Your task to perform on an android device: Search for "logitech g502" on amazon.com, select the first entry, add it to the cart, then select checkout. Image 0: 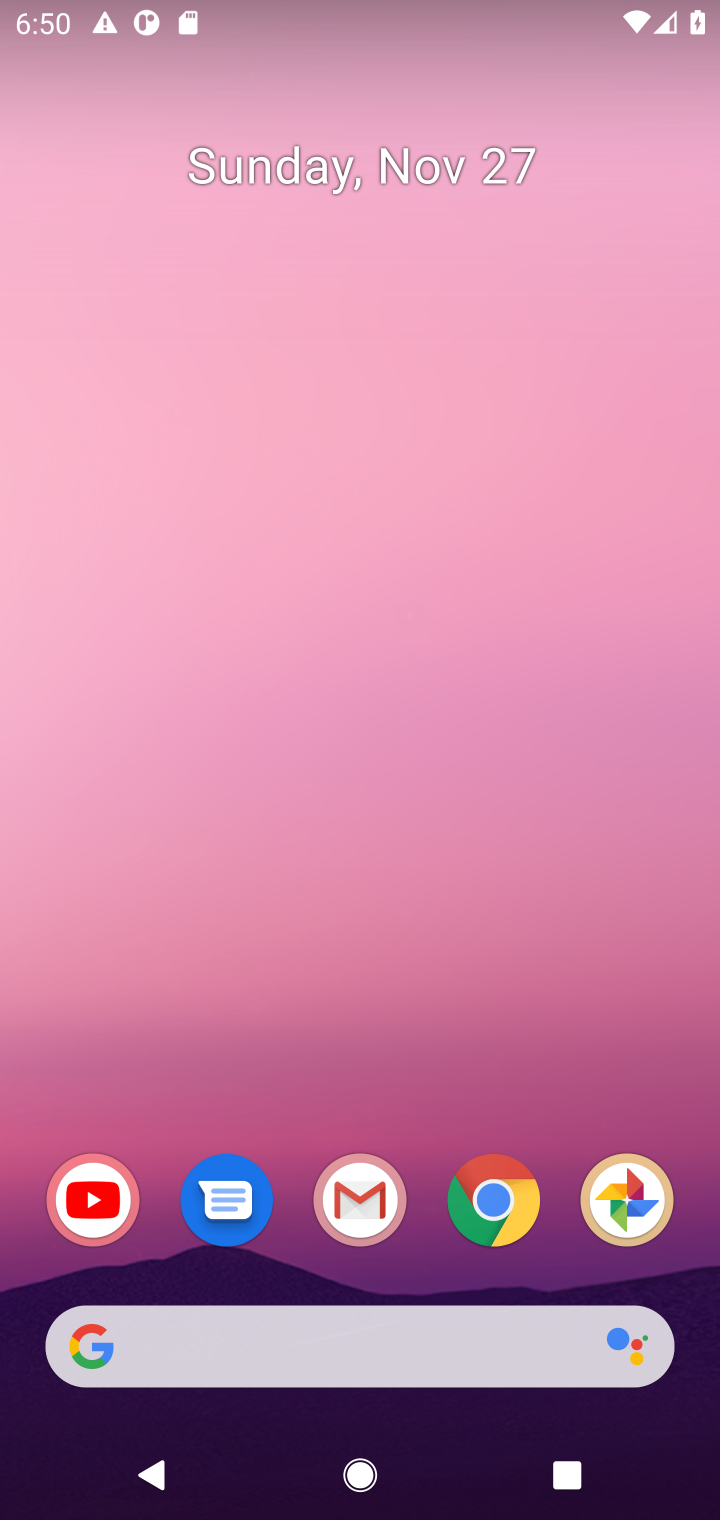
Step 0: click (505, 1216)
Your task to perform on an android device: Search for "logitech g502" on amazon.com, select the first entry, add it to the cart, then select checkout. Image 1: 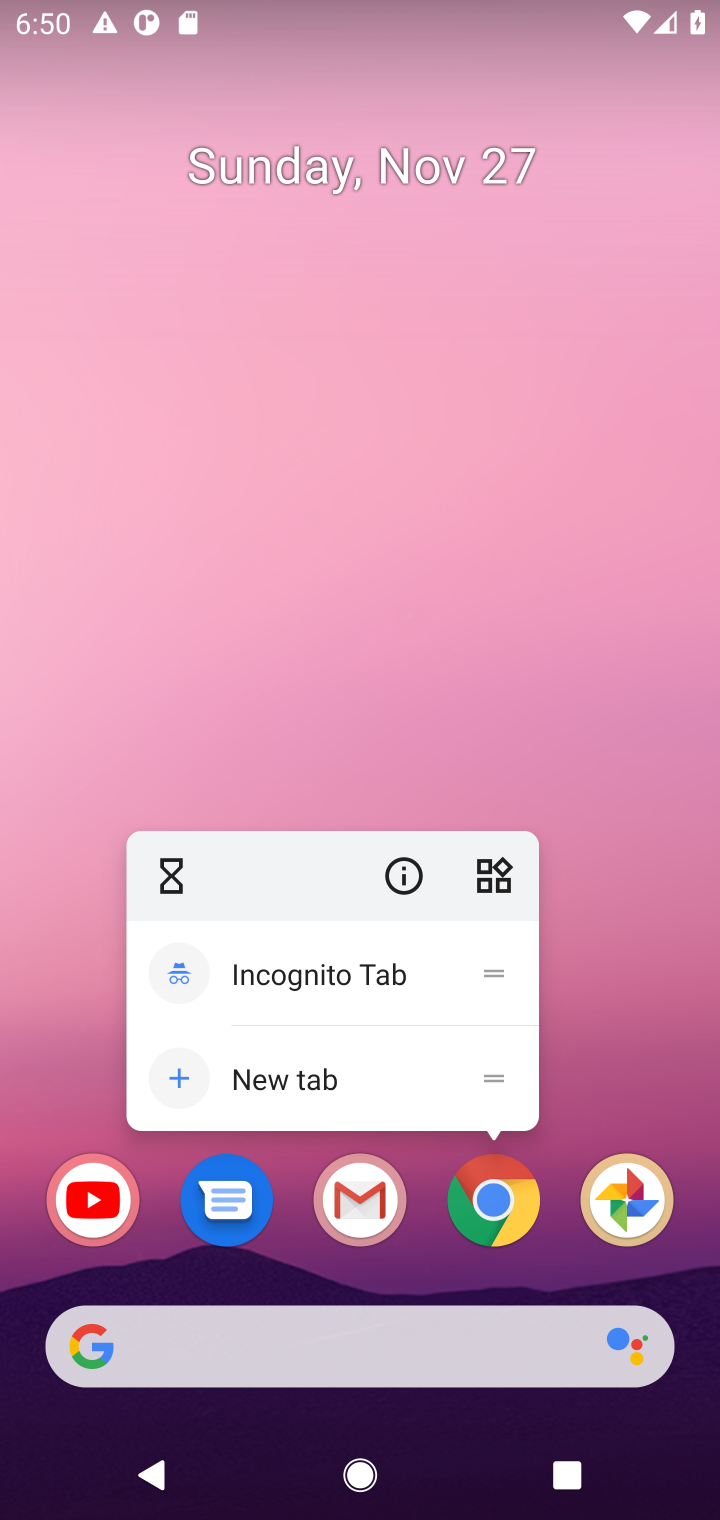
Step 1: click (477, 1203)
Your task to perform on an android device: Search for "logitech g502" on amazon.com, select the first entry, add it to the cart, then select checkout. Image 2: 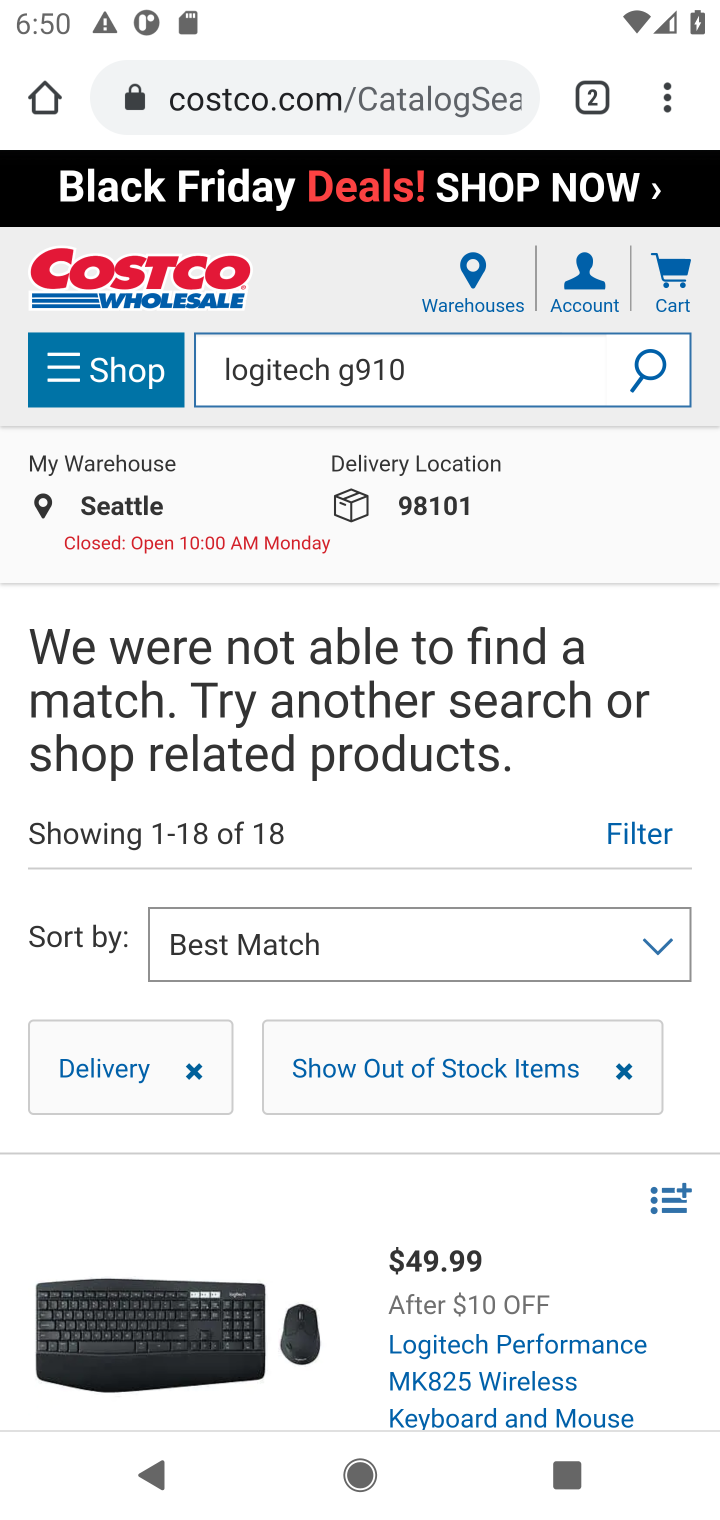
Step 2: click (326, 102)
Your task to perform on an android device: Search for "logitech g502" on amazon.com, select the first entry, add it to the cart, then select checkout. Image 3: 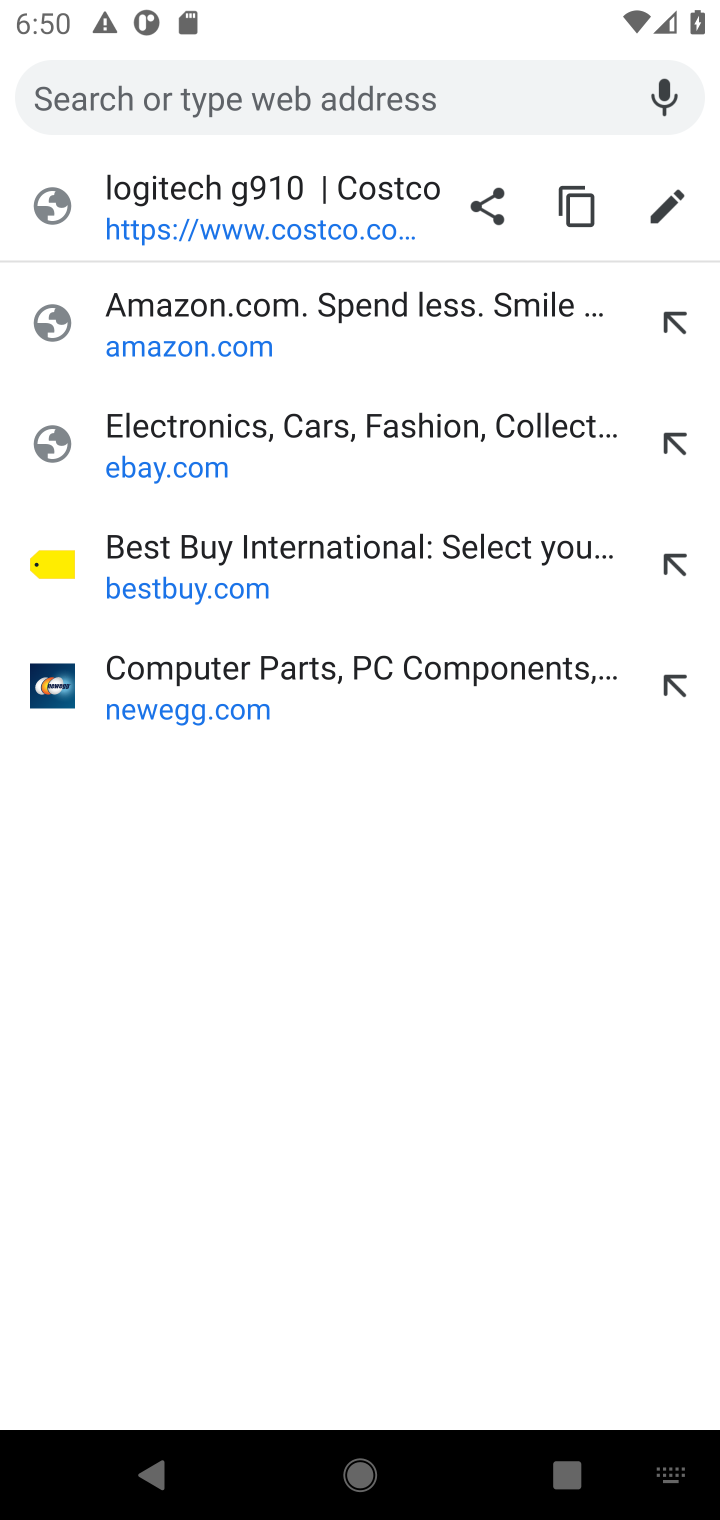
Step 3: click (163, 340)
Your task to perform on an android device: Search for "logitech g502" on amazon.com, select the first entry, add it to the cart, then select checkout. Image 4: 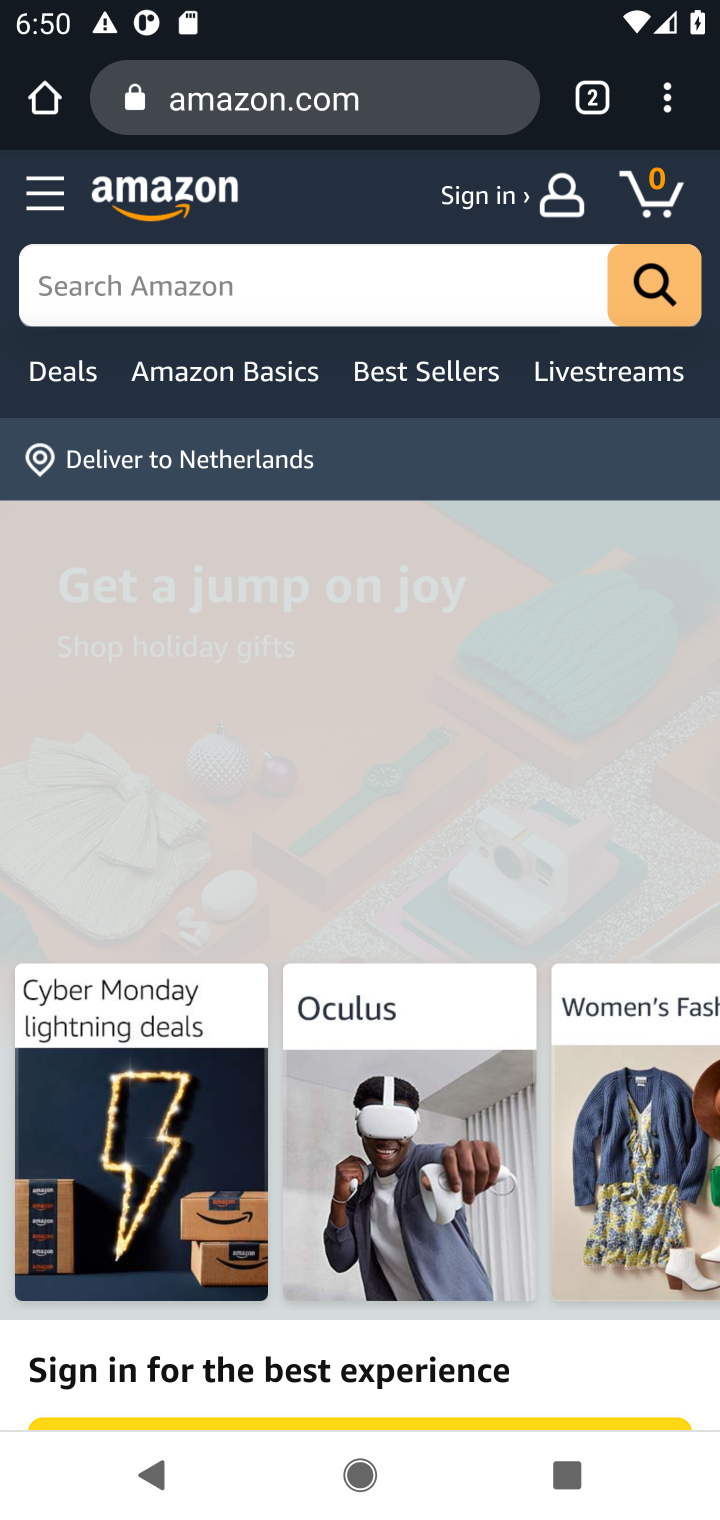
Step 4: click (187, 279)
Your task to perform on an android device: Search for "logitech g502" on amazon.com, select the first entry, add it to the cart, then select checkout. Image 5: 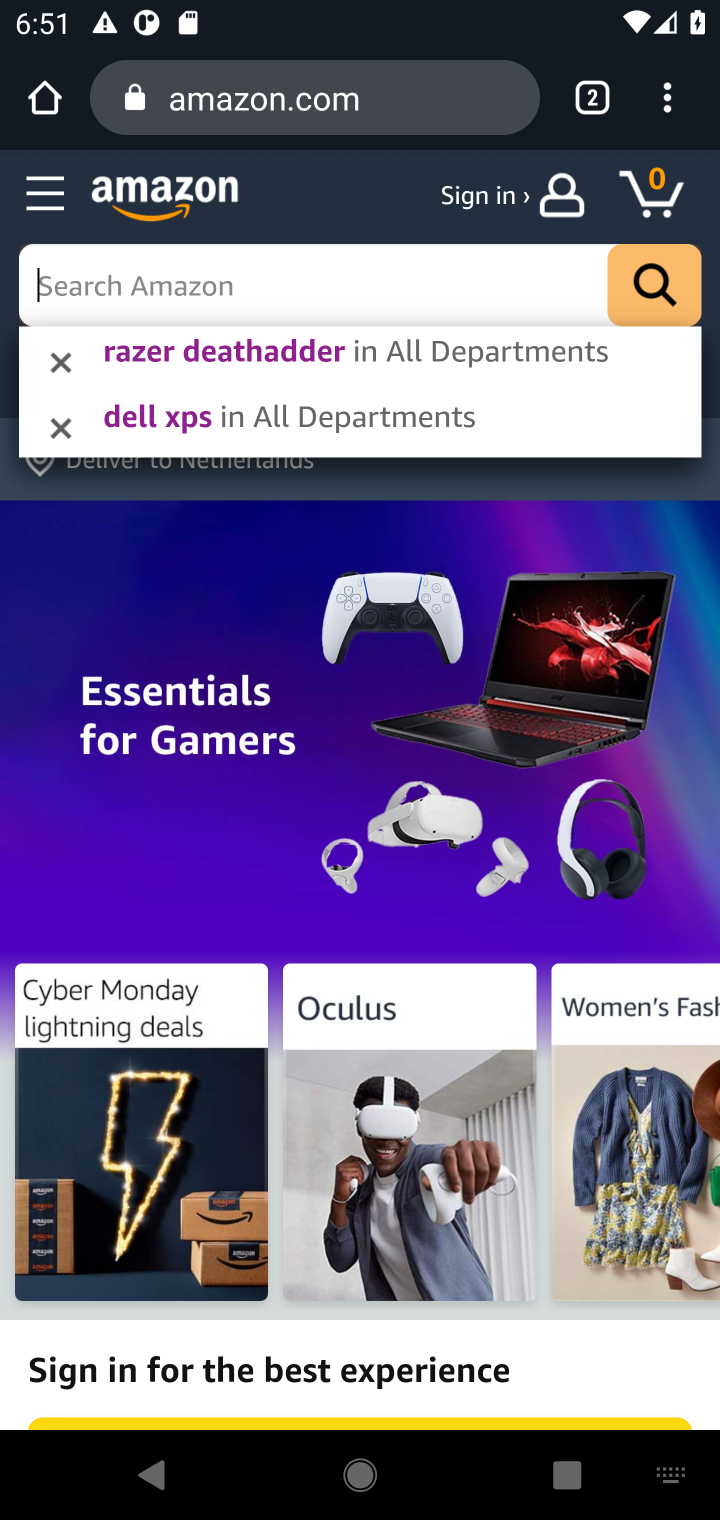
Step 5: type "logitech g502"
Your task to perform on an android device: Search for "logitech g502" on amazon.com, select the first entry, add it to the cart, then select checkout. Image 6: 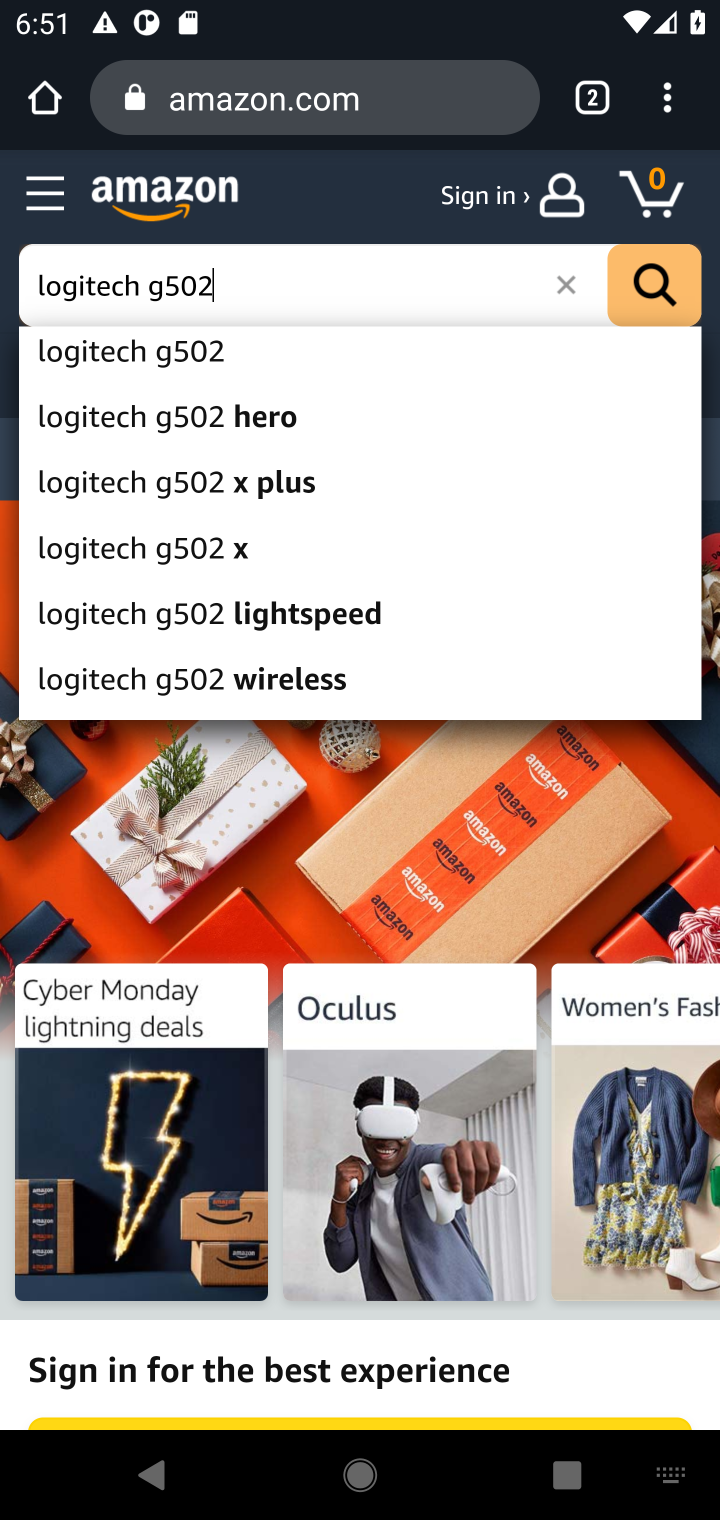
Step 6: click (195, 367)
Your task to perform on an android device: Search for "logitech g502" on amazon.com, select the first entry, add it to the cart, then select checkout. Image 7: 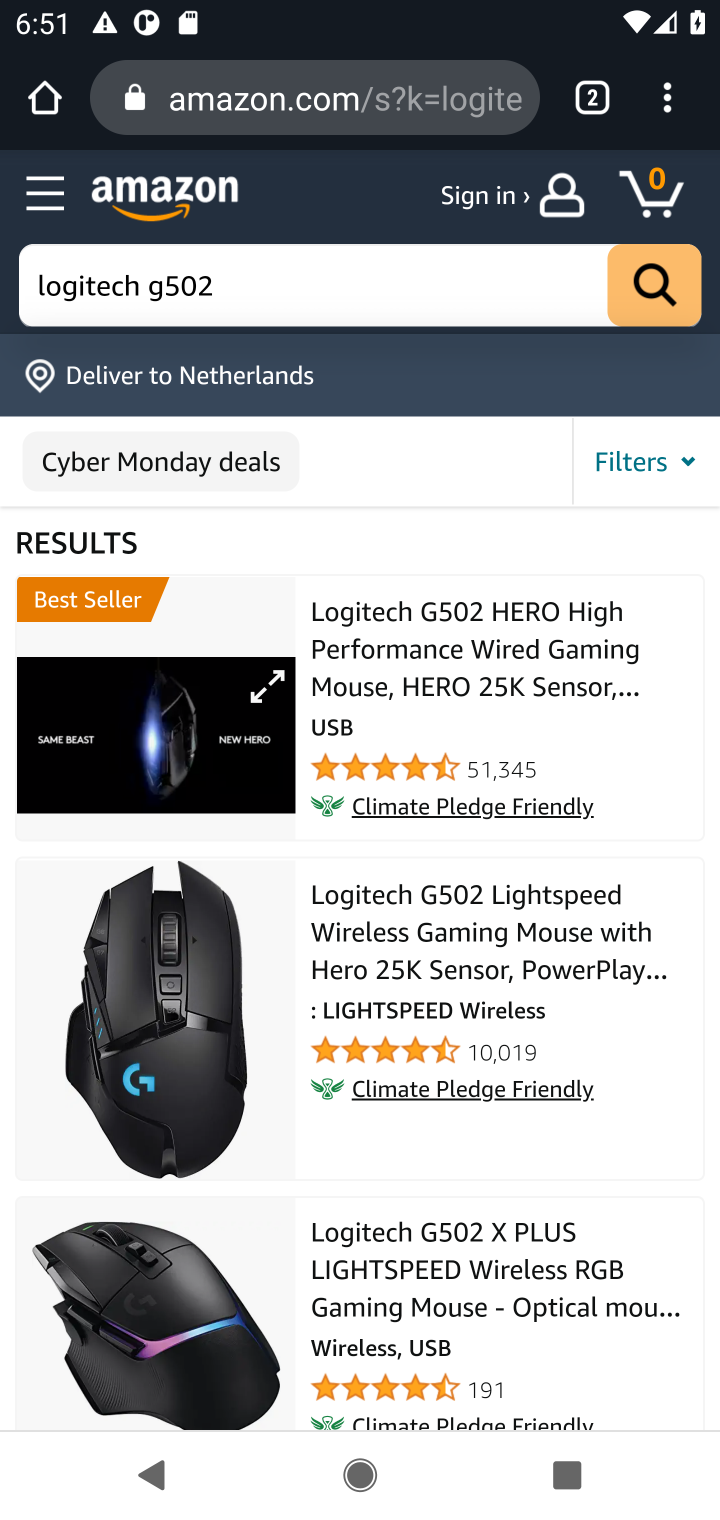
Step 7: click (356, 649)
Your task to perform on an android device: Search for "logitech g502" on amazon.com, select the first entry, add it to the cart, then select checkout. Image 8: 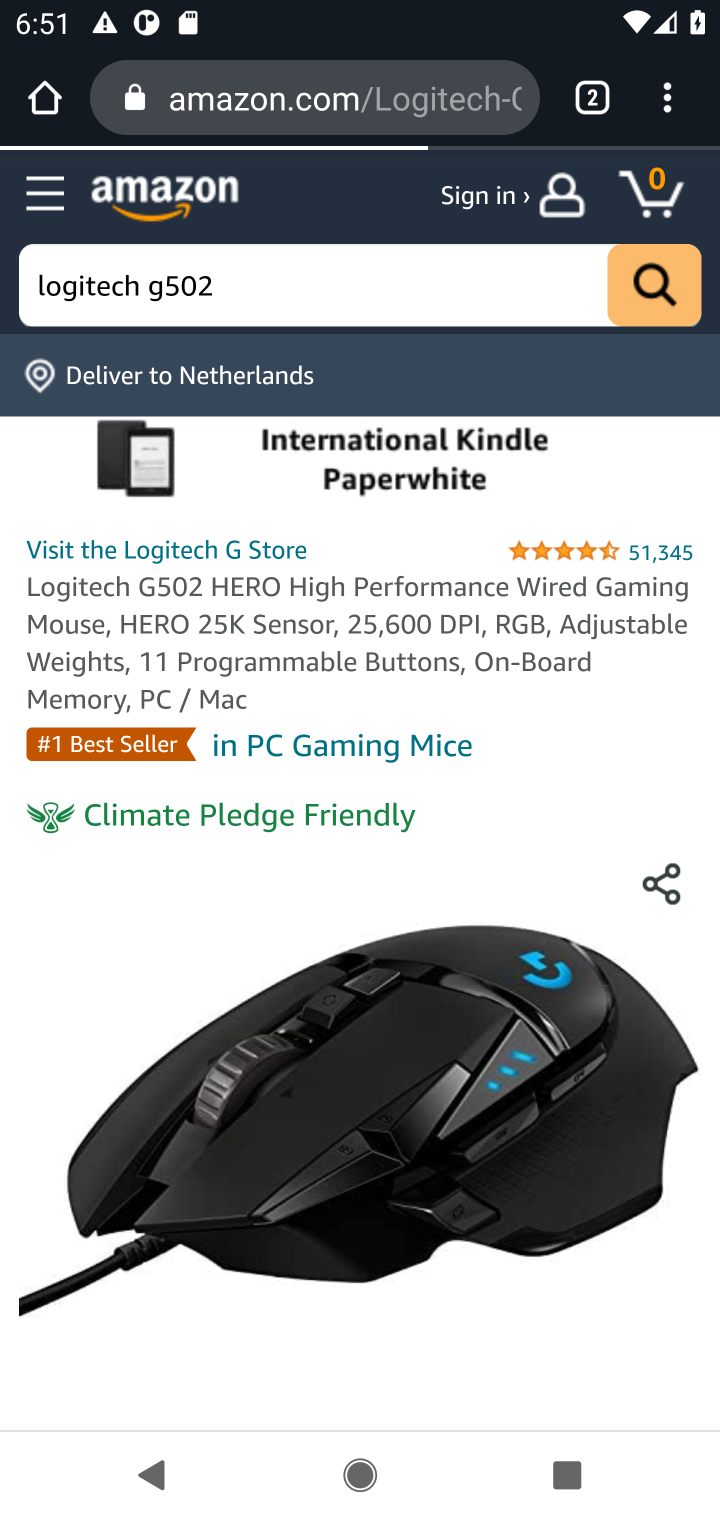
Step 8: task complete